Your task to perform on an android device: turn notification dots off Image 0: 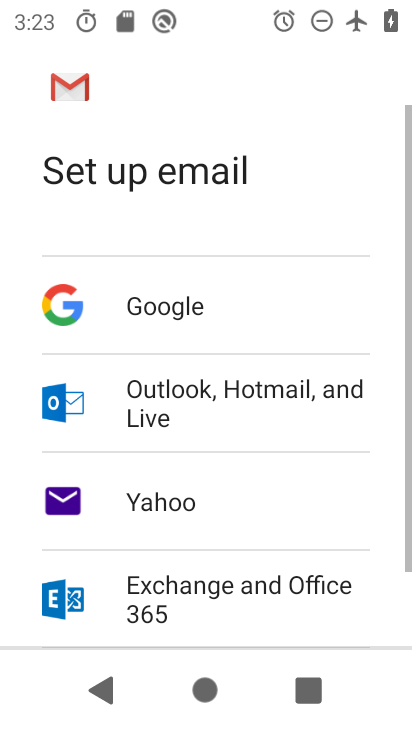
Step 0: press home button
Your task to perform on an android device: turn notification dots off Image 1: 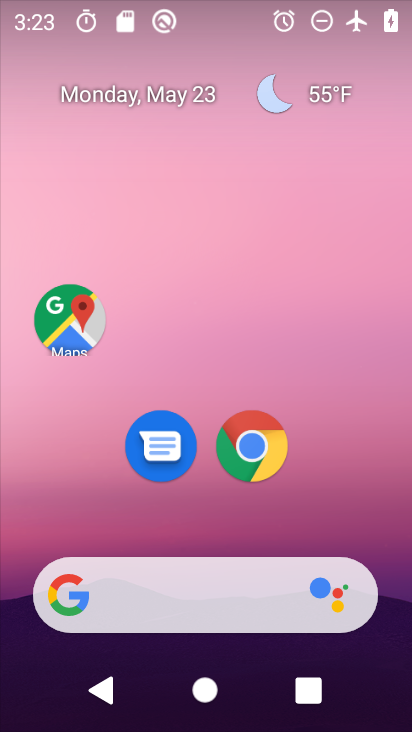
Step 1: drag from (213, 529) to (99, 126)
Your task to perform on an android device: turn notification dots off Image 2: 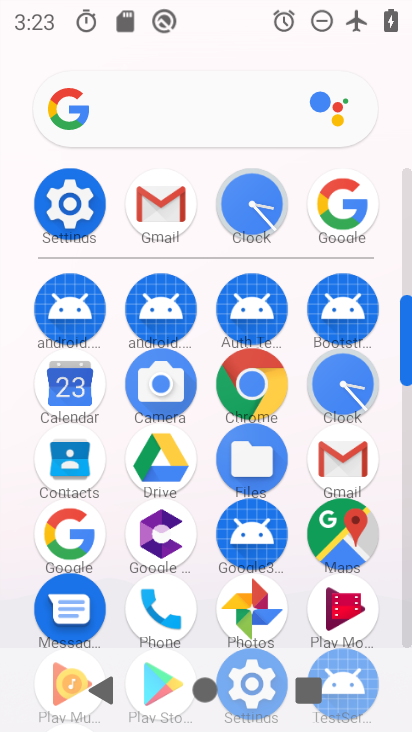
Step 2: click (89, 204)
Your task to perform on an android device: turn notification dots off Image 3: 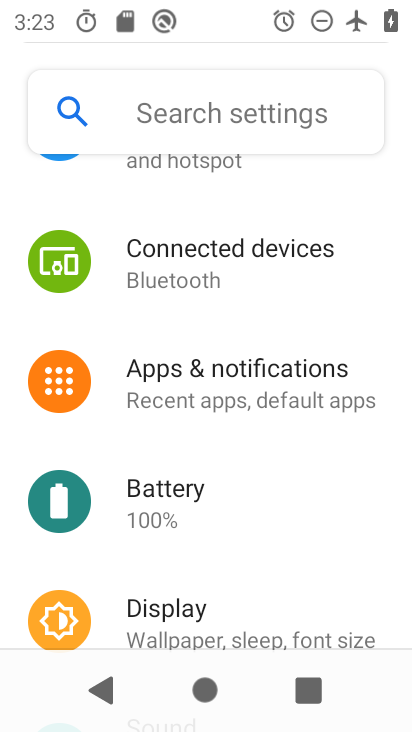
Step 3: click (249, 375)
Your task to perform on an android device: turn notification dots off Image 4: 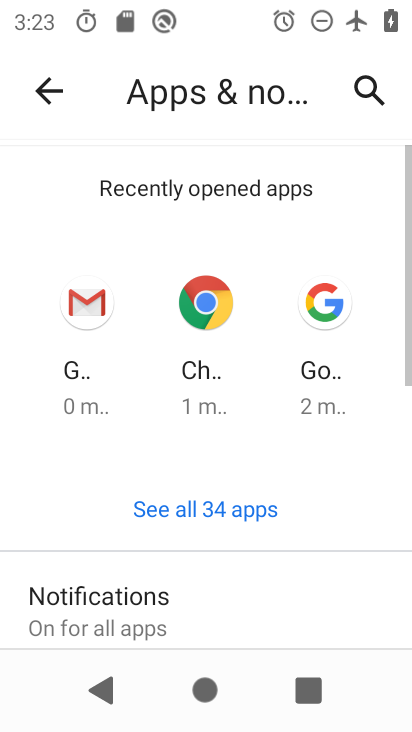
Step 4: click (215, 575)
Your task to perform on an android device: turn notification dots off Image 5: 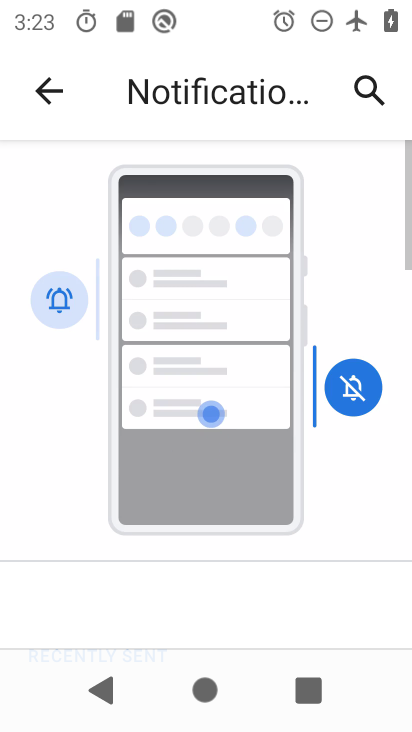
Step 5: drag from (200, 598) to (159, 229)
Your task to perform on an android device: turn notification dots off Image 6: 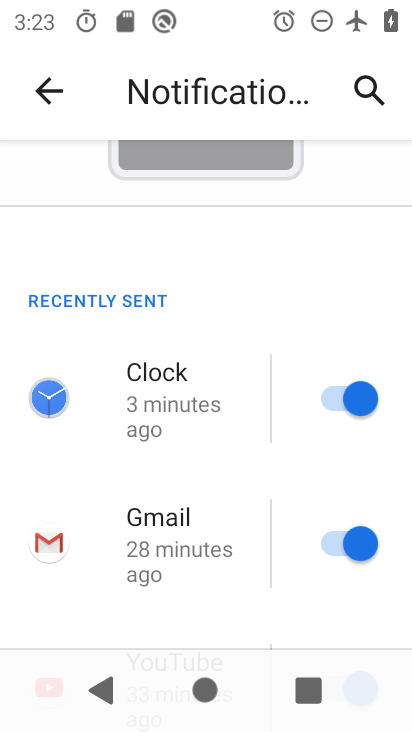
Step 6: drag from (250, 591) to (211, 275)
Your task to perform on an android device: turn notification dots off Image 7: 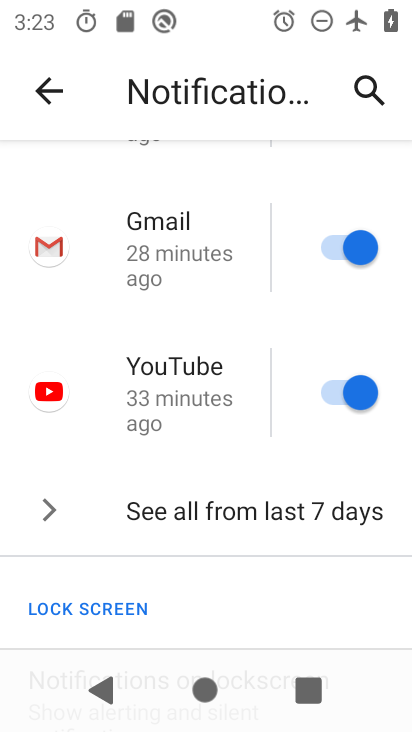
Step 7: drag from (271, 542) to (207, 277)
Your task to perform on an android device: turn notification dots off Image 8: 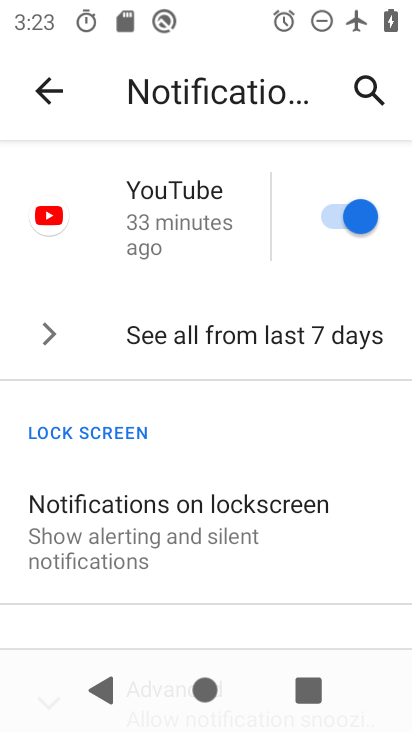
Step 8: drag from (256, 547) to (209, 303)
Your task to perform on an android device: turn notification dots off Image 9: 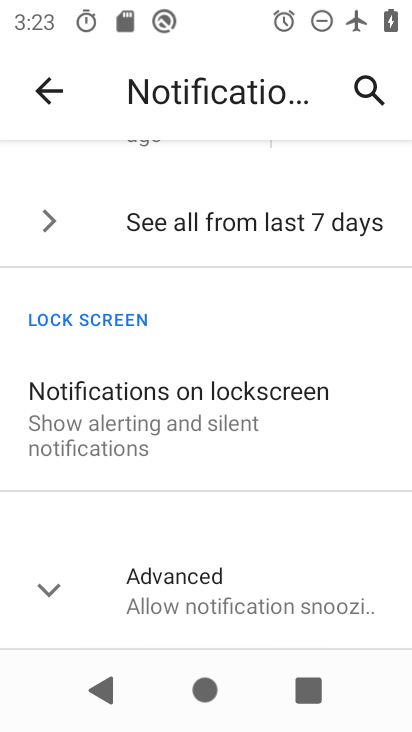
Step 9: click (259, 560)
Your task to perform on an android device: turn notification dots off Image 10: 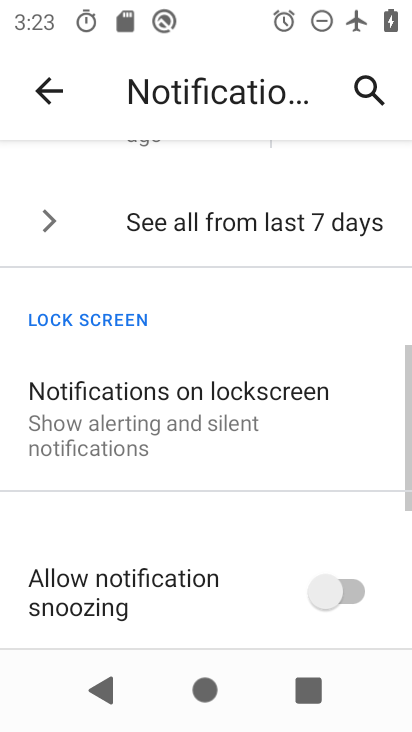
Step 10: drag from (252, 575) to (220, 262)
Your task to perform on an android device: turn notification dots off Image 11: 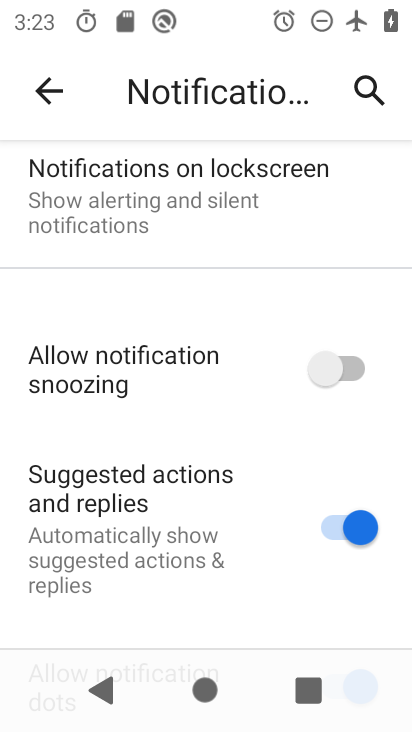
Step 11: drag from (254, 511) to (207, 228)
Your task to perform on an android device: turn notification dots off Image 12: 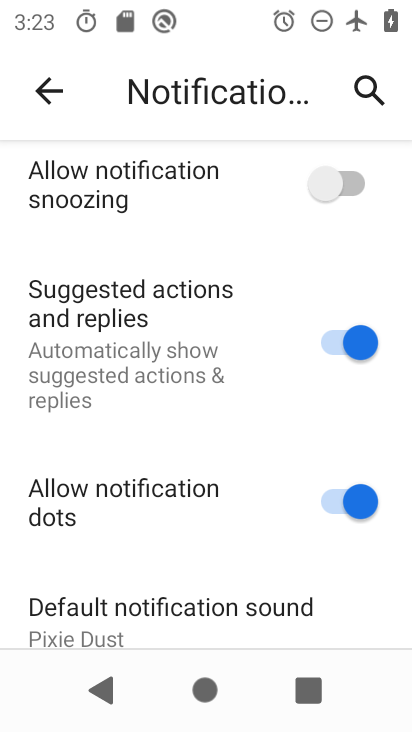
Step 12: click (344, 496)
Your task to perform on an android device: turn notification dots off Image 13: 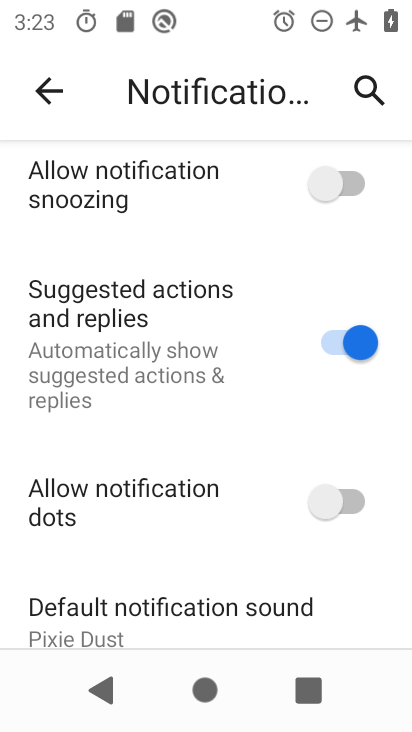
Step 13: task complete